Your task to perform on an android device: open app "Mercado Libre" Image 0: 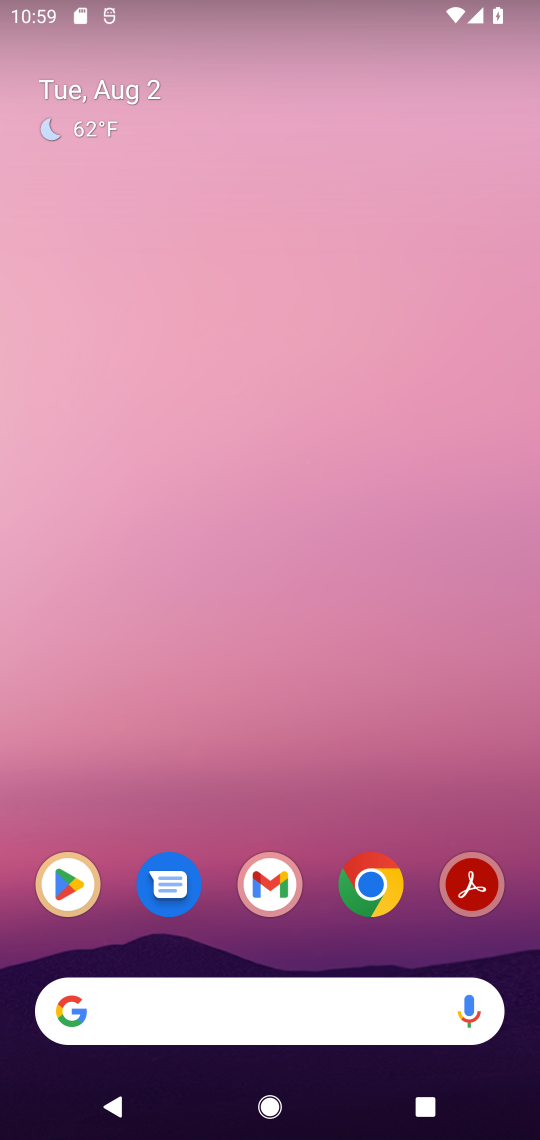
Step 0: click (59, 885)
Your task to perform on an android device: open app "Mercado Libre" Image 1: 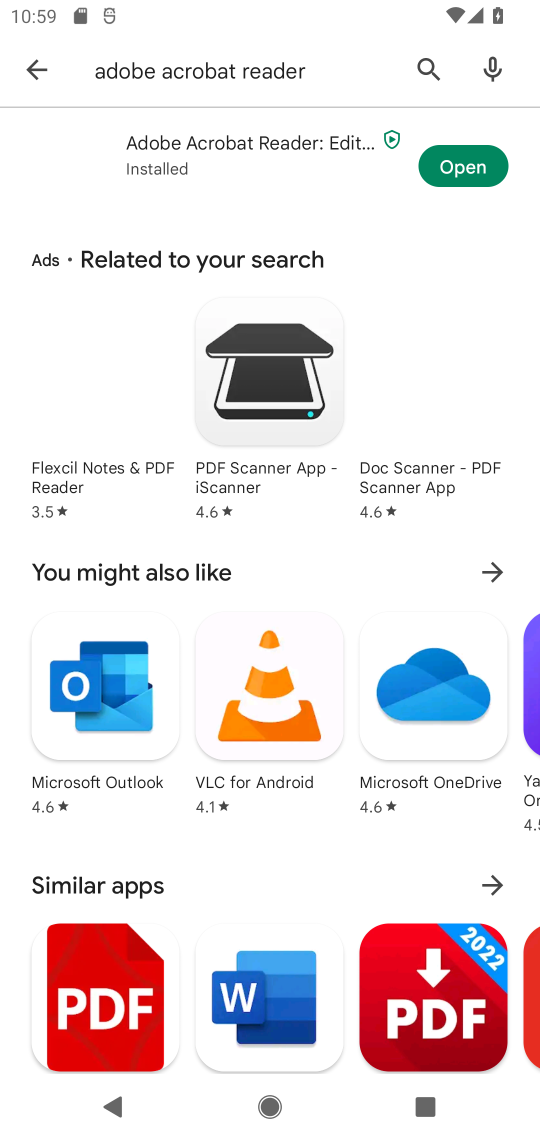
Step 1: click (252, 72)
Your task to perform on an android device: open app "Mercado Libre" Image 2: 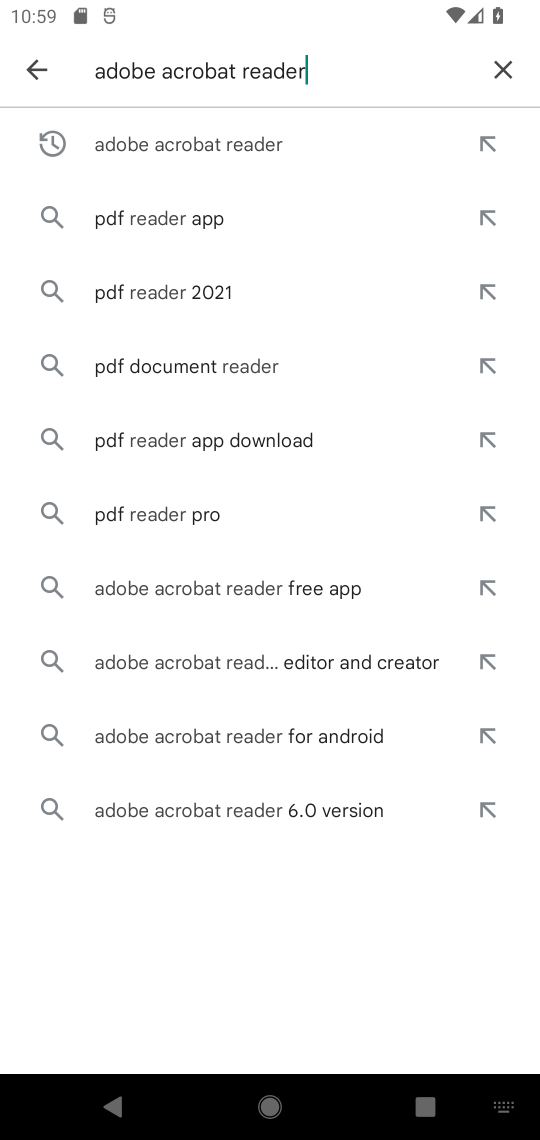
Step 2: click (500, 66)
Your task to perform on an android device: open app "Mercado Libre" Image 3: 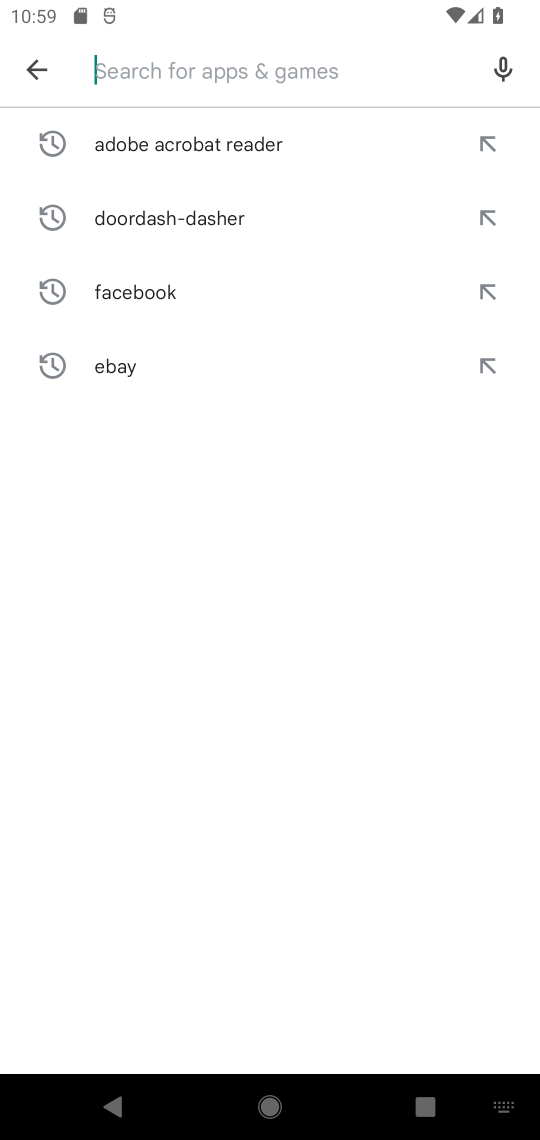
Step 3: type "mercado libre"
Your task to perform on an android device: open app "Mercado Libre" Image 4: 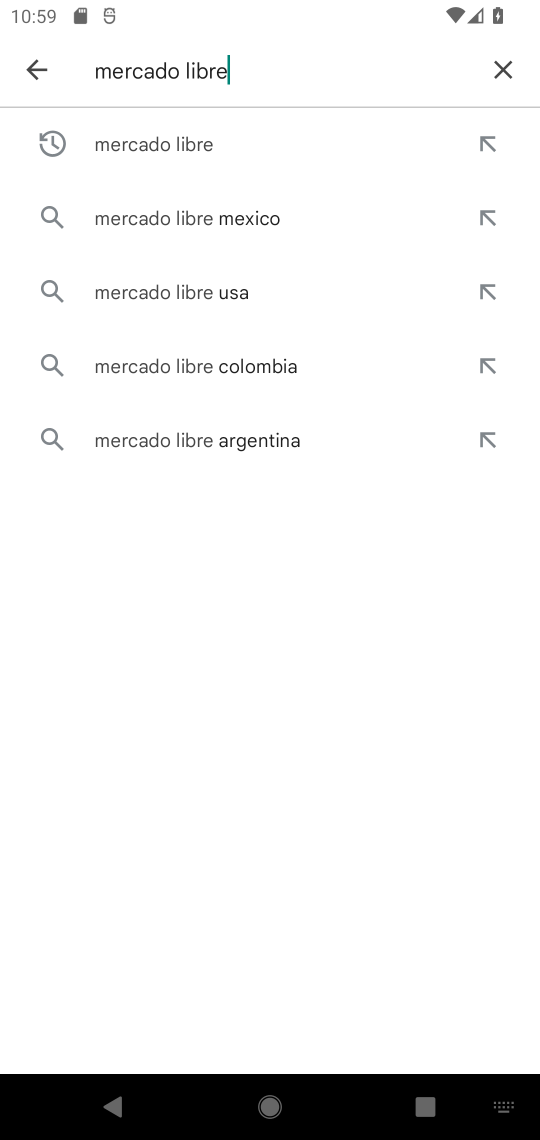
Step 4: click (166, 154)
Your task to perform on an android device: open app "Mercado Libre" Image 5: 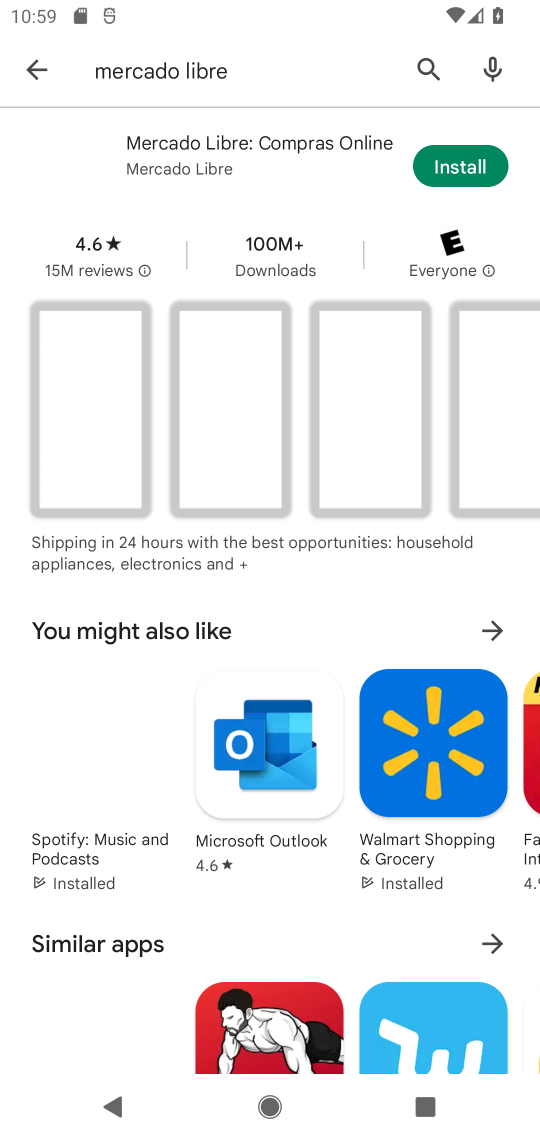
Step 5: click (458, 156)
Your task to perform on an android device: open app "Mercado Libre" Image 6: 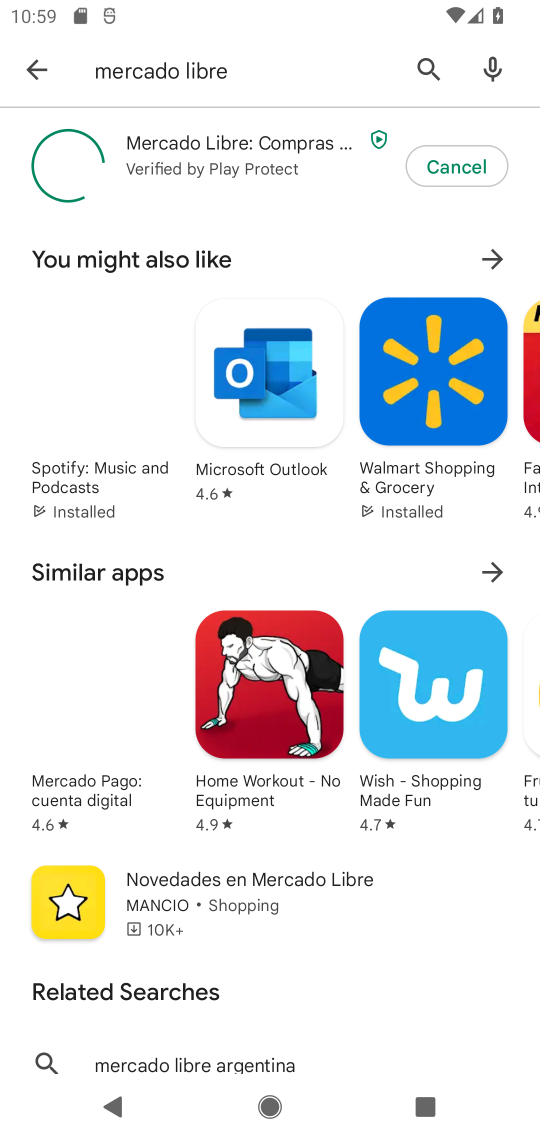
Step 6: click (461, 161)
Your task to perform on an android device: open app "Mercado Libre" Image 7: 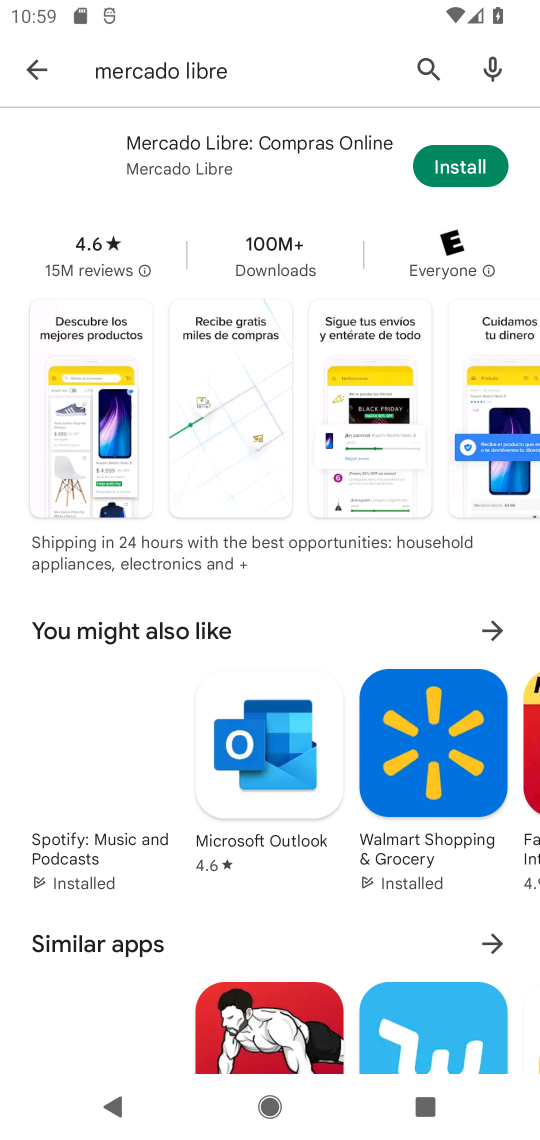
Step 7: task complete